Your task to perform on an android device: turn off location Image 0: 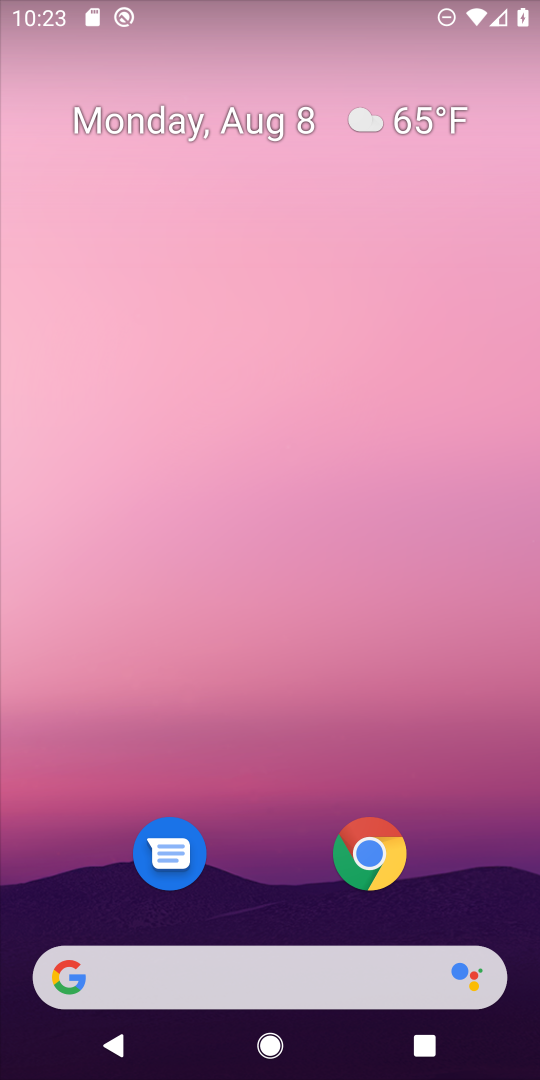
Step 0: drag from (276, 843) to (275, 71)
Your task to perform on an android device: turn off location Image 1: 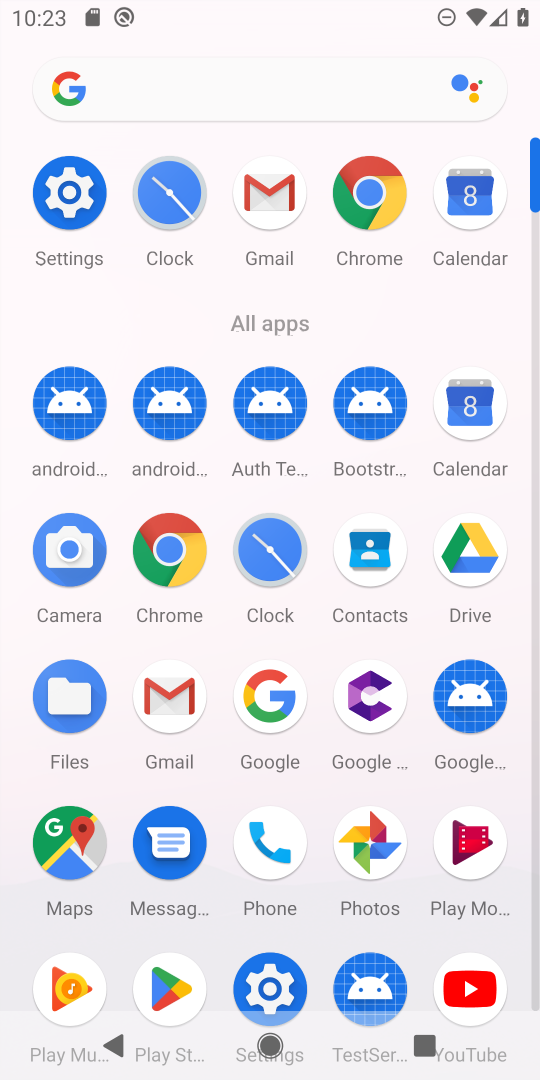
Step 1: click (70, 199)
Your task to perform on an android device: turn off location Image 2: 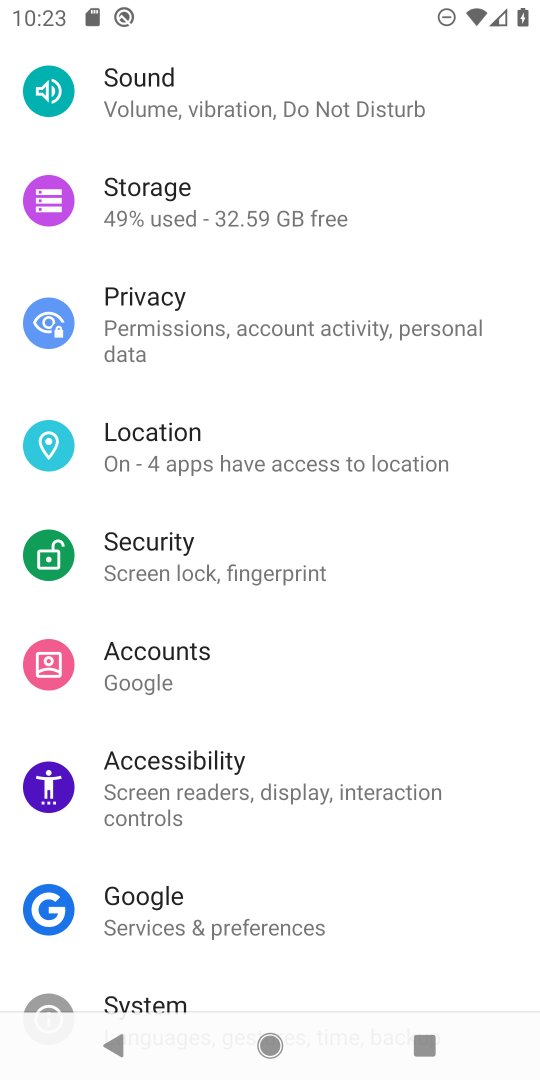
Step 2: click (214, 465)
Your task to perform on an android device: turn off location Image 3: 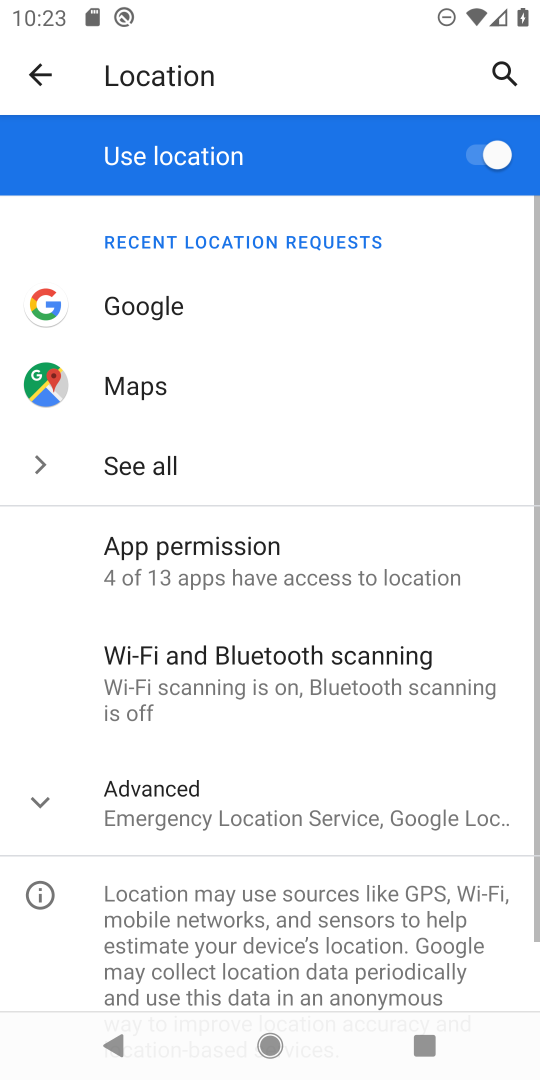
Step 3: click (485, 153)
Your task to perform on an android device: turn off location Image 4: 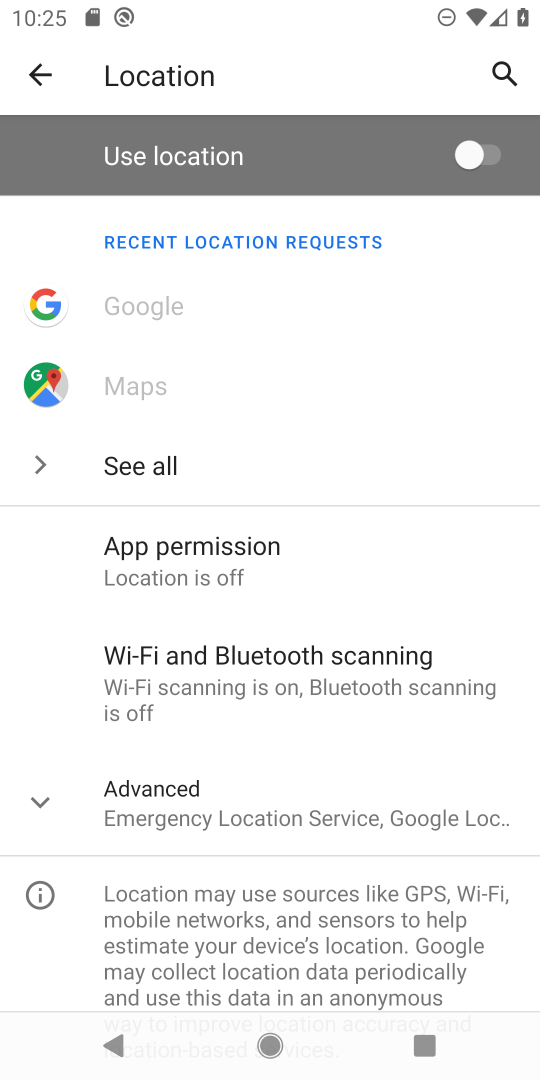
Step 4: task complete